Your task to perform on an android device: delete the emails in spam in the gmail app Image 0: 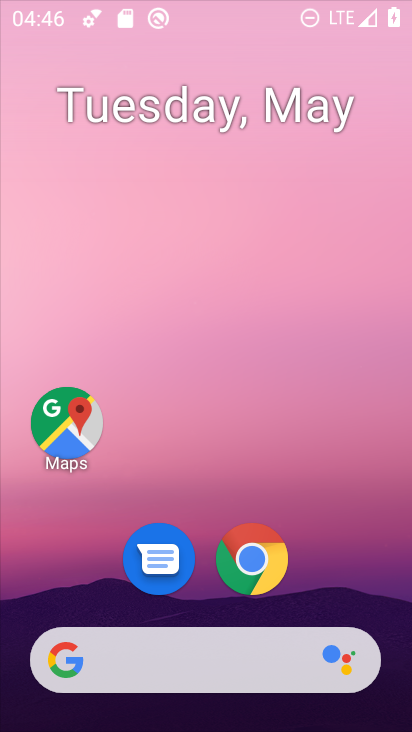
Step 0: drag from (223, 721) to (244, 250)
Your task to perform on an android device: delete the emails in spam in the gmail app Image 1: 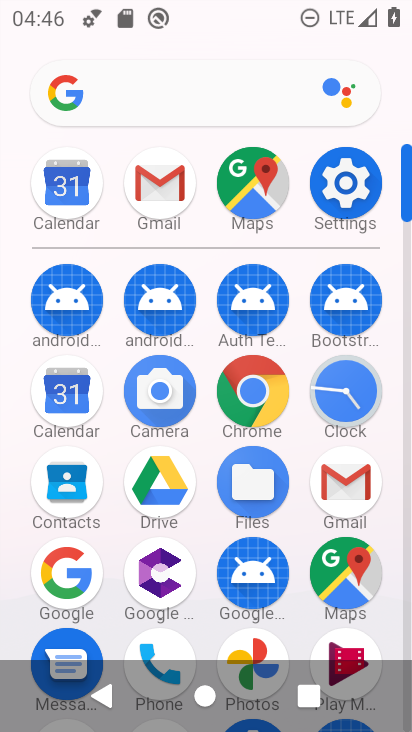
Step 1: click (344, 465)
Your task to perform on an android device: delete the emails in spam in the gmail app Image 2: 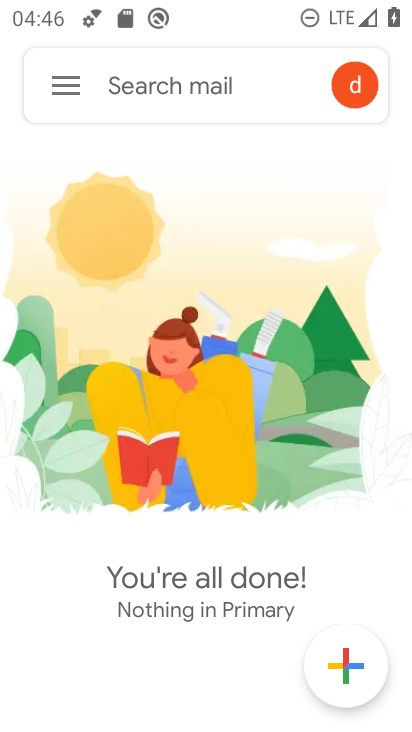
Step 2: click (64, 75)
Your task to perform on an android device: delete the emails in spam in the gmail app Image 3: 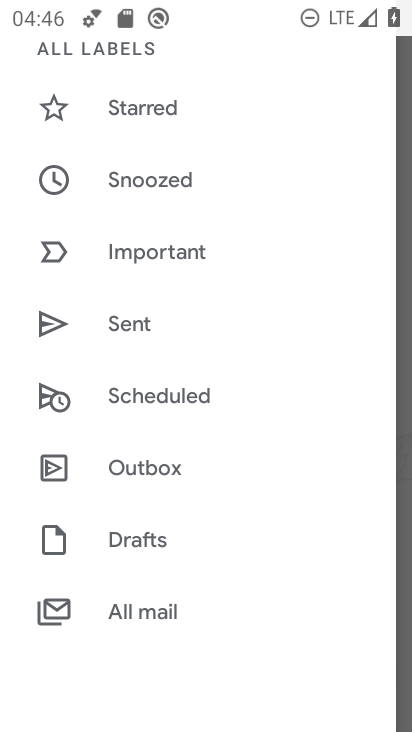
Step 3: drag from (154, 623) to (160, 302)
Your task to perform on an android device: delete the emails in spam in the gmail app Image 4: 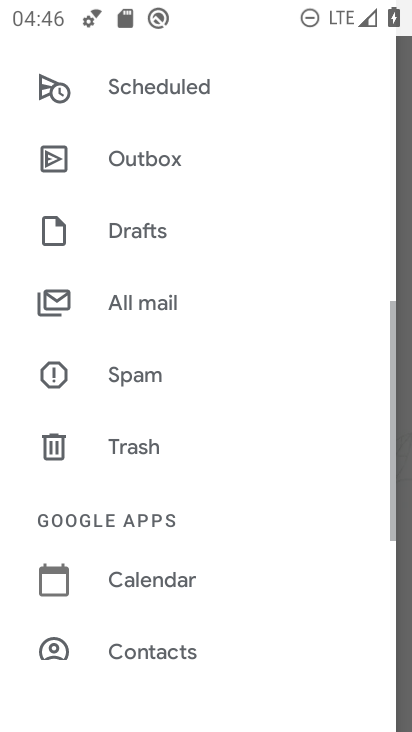
Step 4: drag from (184, 625) to (194, 224)
Your task to perform on an android device: delete the emails in spam in the gmail app Image 5: 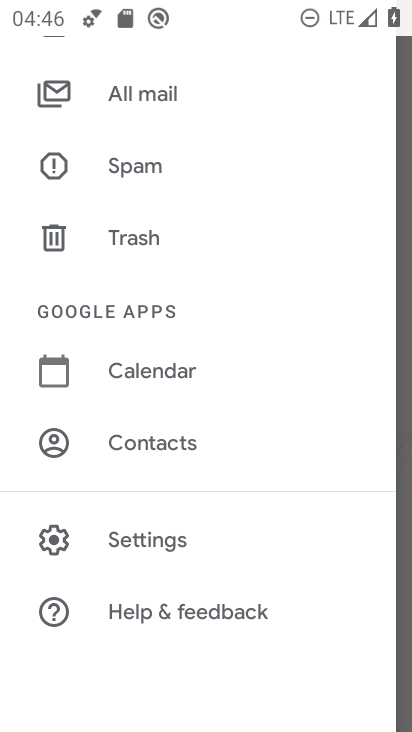
Step 5: click (126, 160)
Your task to perform on an android device: delete the emails in spam in the gmail app Image 6: 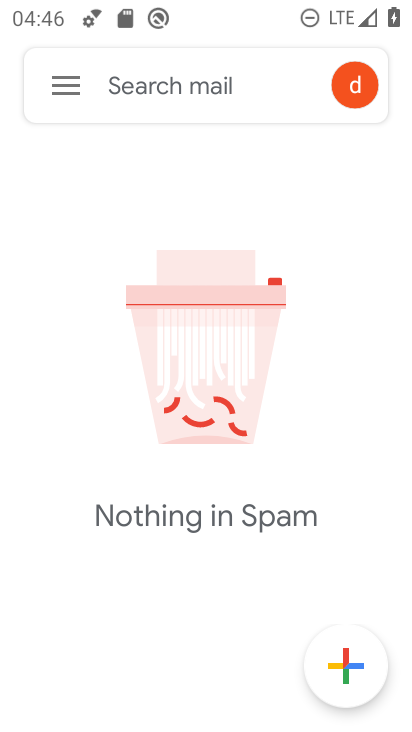
Step 6: task complete